Your task to perform on an android device: Add "bose quietcomfort 35" to the cart on amazon.com Image 0: 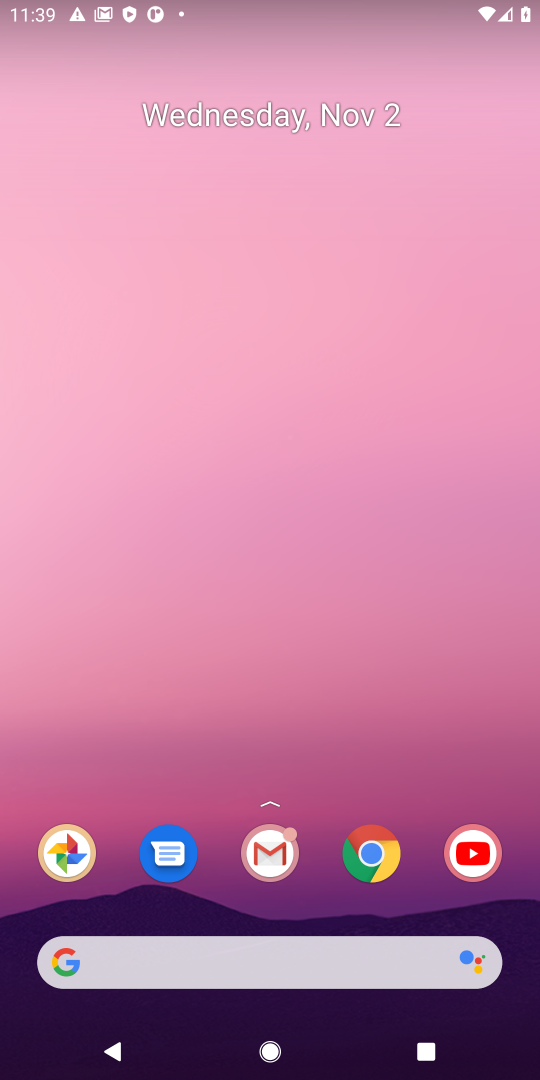
Step 0: click (375, 857)
Your task to perform on an android device: Add "bose quietcomfort 35" to the cart on amazon.com Image 1: 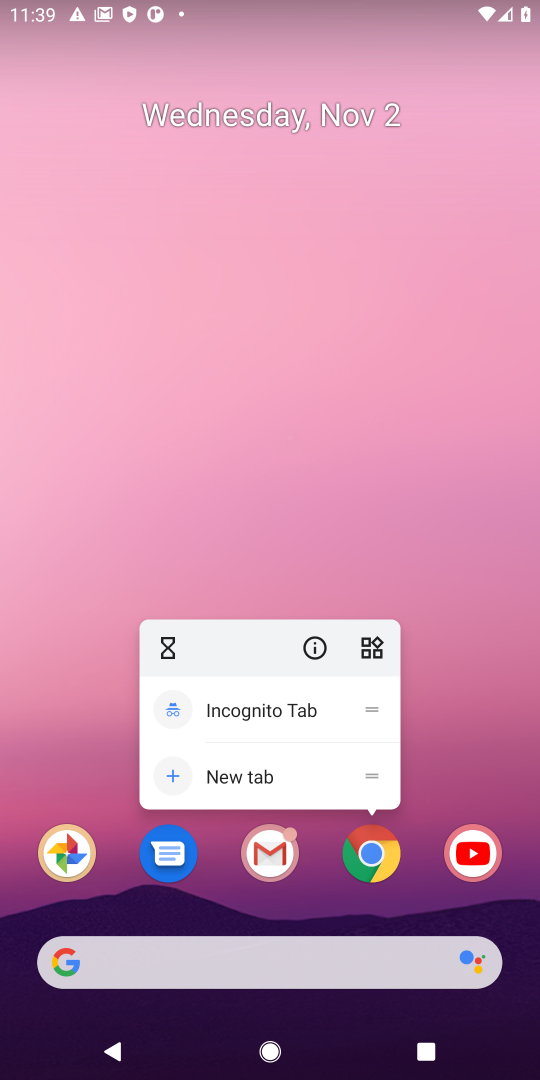
Step 1: click (369, 865)
Your task to perform on an android device: Add "bose quietcomfort 35" to the cart on amazon.com Image 2: 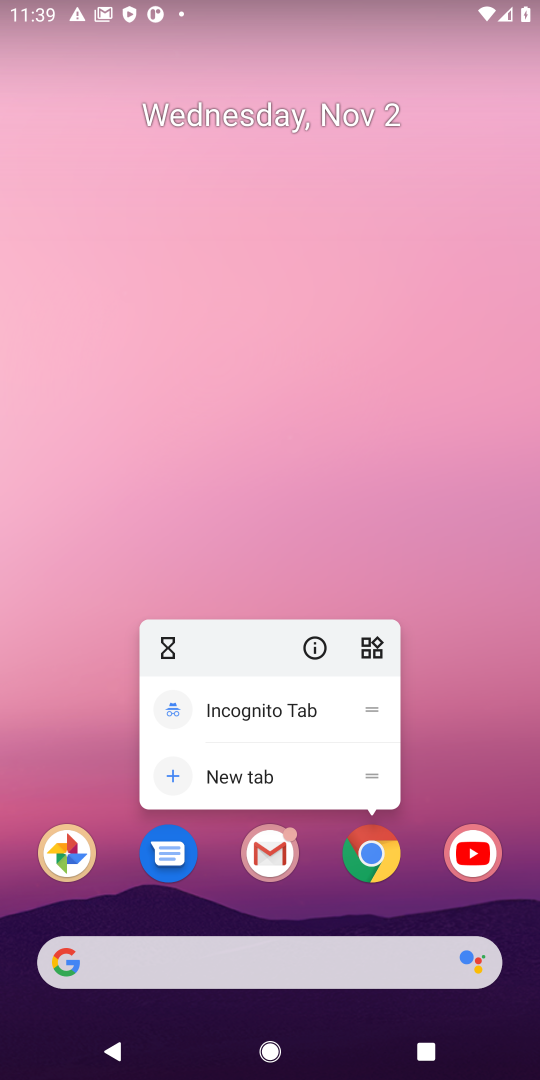
Step 2: click (377, 847)
Your task to perform on an android device: Add "bose quietcomfort 35" to the cart on amazon.com Image 3: 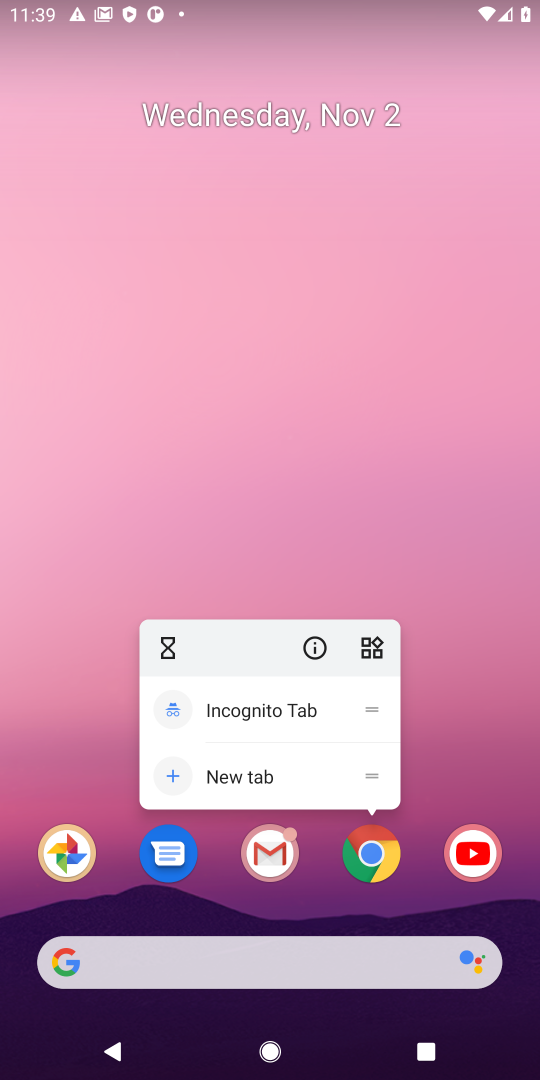
Step 3: click (373, 851)
Your task to perform on an android device: Add "bose quietcomfort 35" to the cart on amazon.com Image 4: 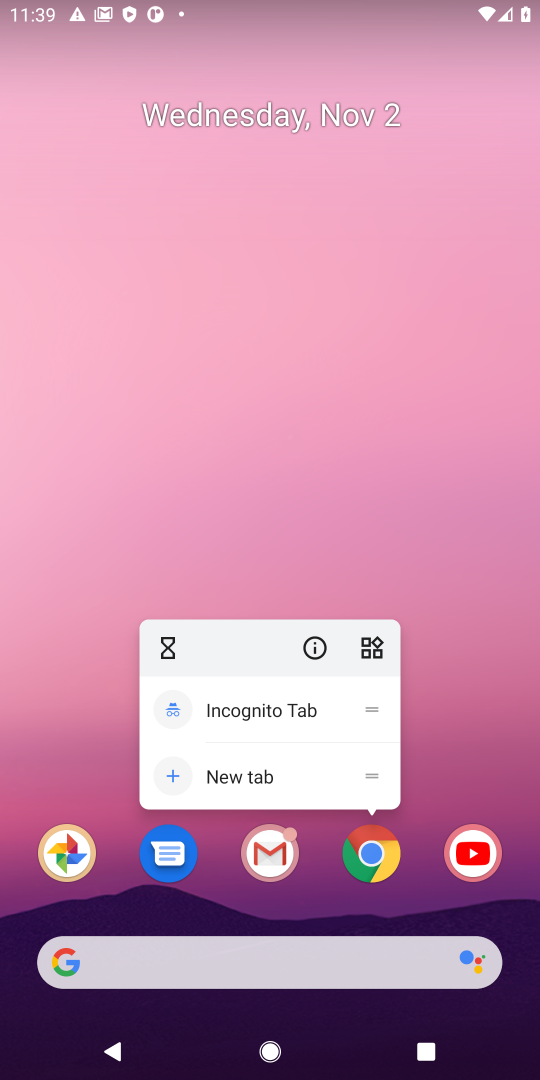
Step 4: click (384, 851)
Your task to perform on an android device: Add "bose quietcomfort 35" to the cart on amazon.com Image 5: 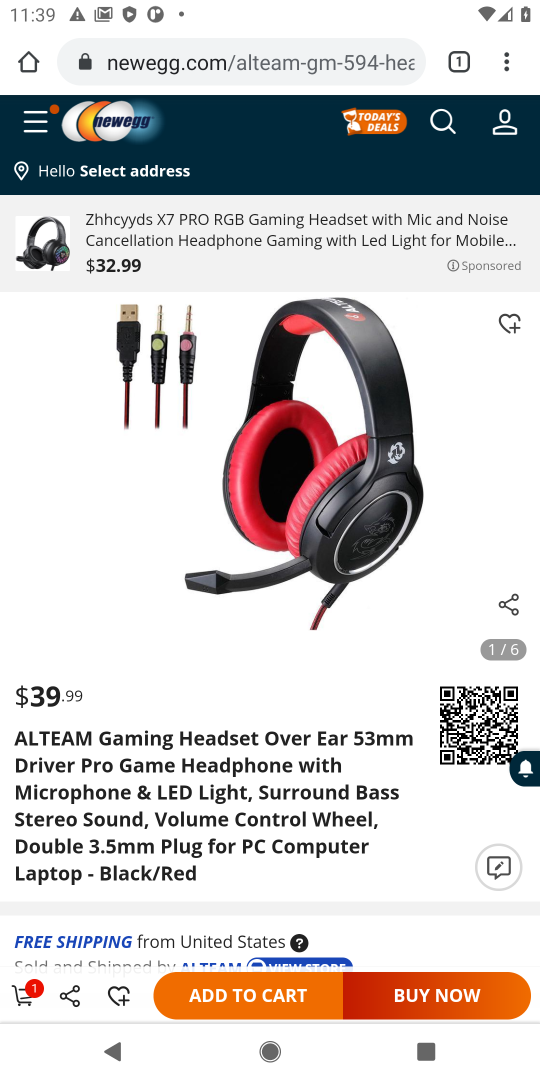
Step 5: click (226, 66)
Your task to perform on an android device: Add "bose quietcomfort 35" to the cart on amazon.com Image 6: 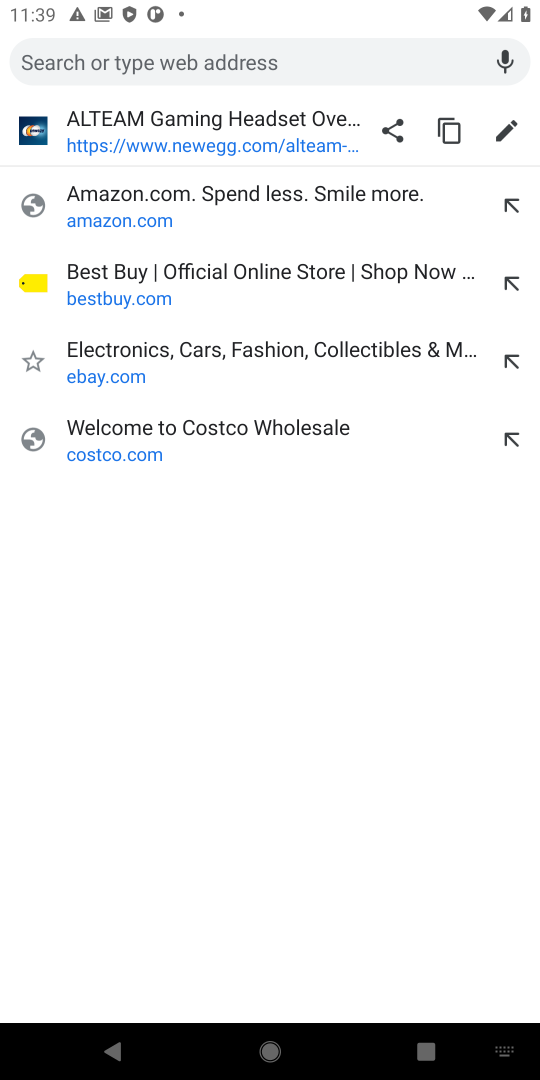
Step 6: click (127, 221)
Your task to perform on an android device: Add "bose quietcomfort 35" to the cart on amazon.com Image 7: 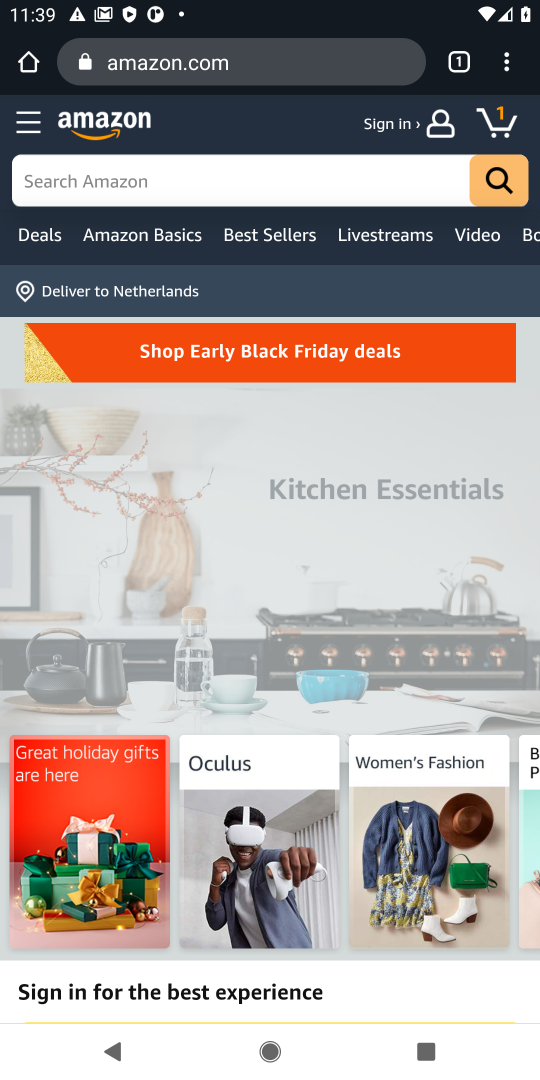
Step 7: click (116, 176)
Your task to perform on an android device: Add "bose quietcomfort 35" to the cart on amazon.com Image 8: 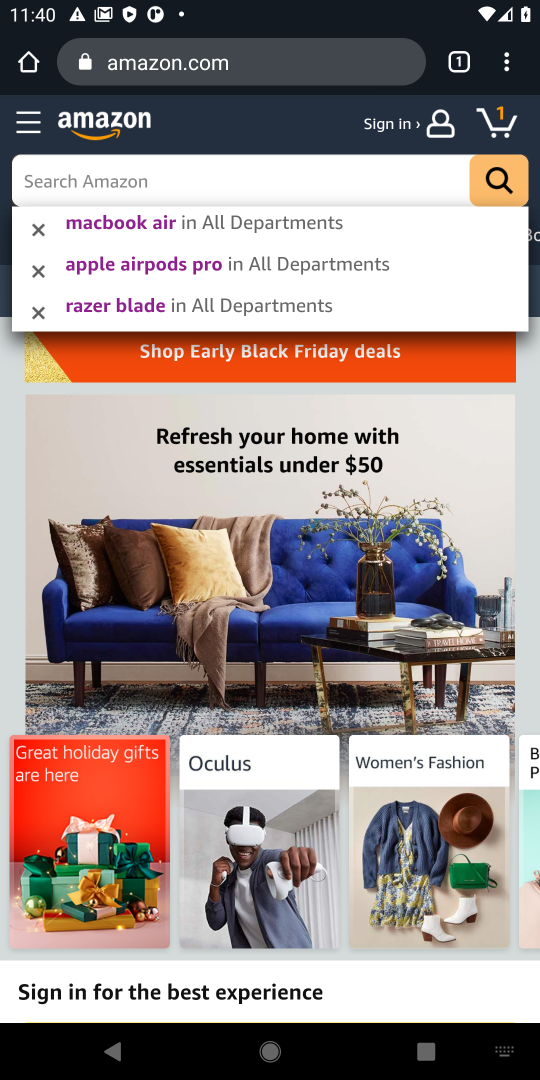
Step 8: type "bose quietcomfort 35"
Your task to perform on an android device: Add "bose quietcomfort 35" to the cart on amazon.com Image 9: 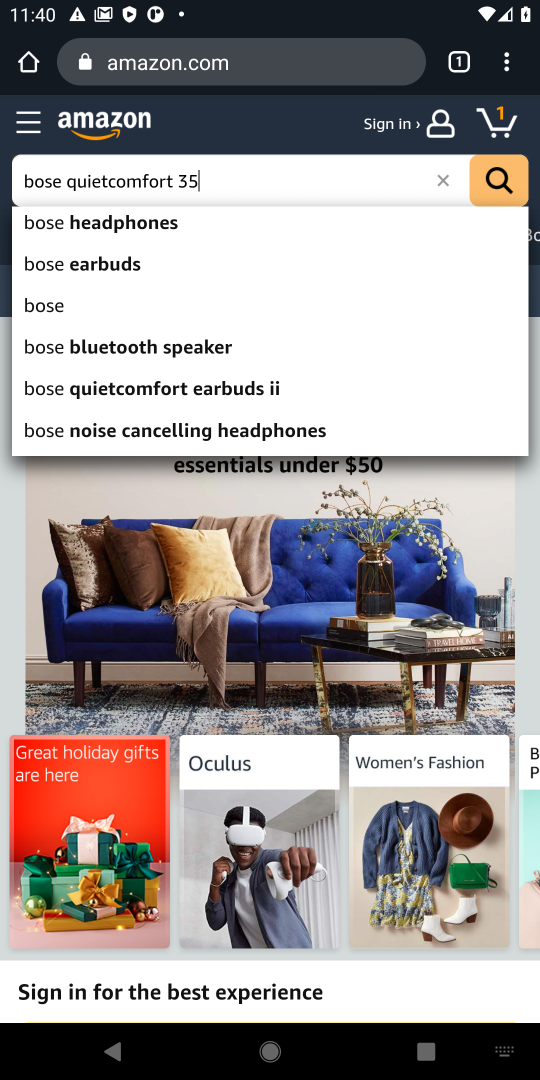
Step 9: press enter
Your task to perform on an android device: Add "bose quietcomfort 35" to the cart on amazon.com Image 10: 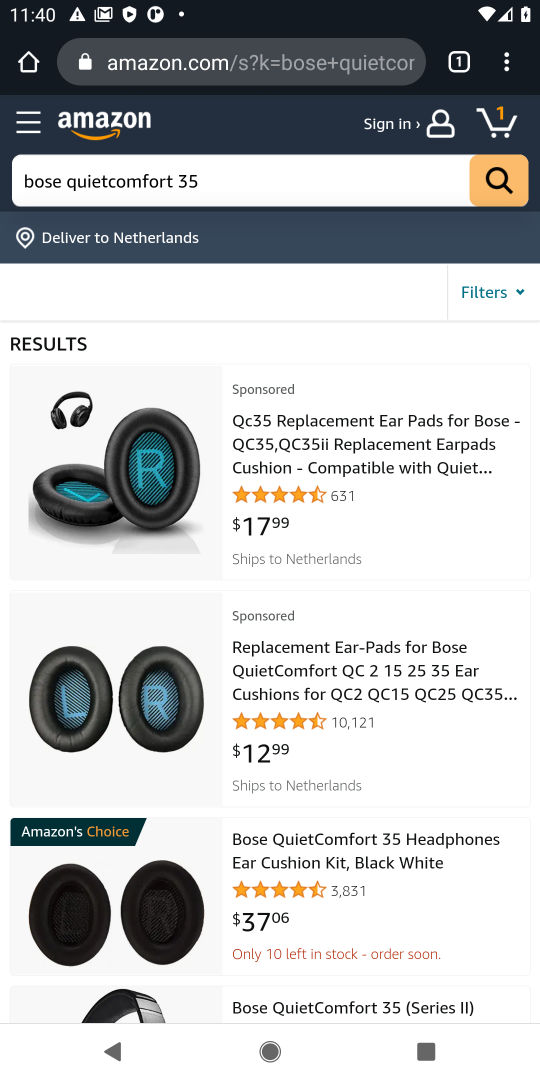
Step 10: click (327, 451)
Your task to perform on an android device: Add "bose quietcomfort 35" to the cart on amazon.com Image 11: 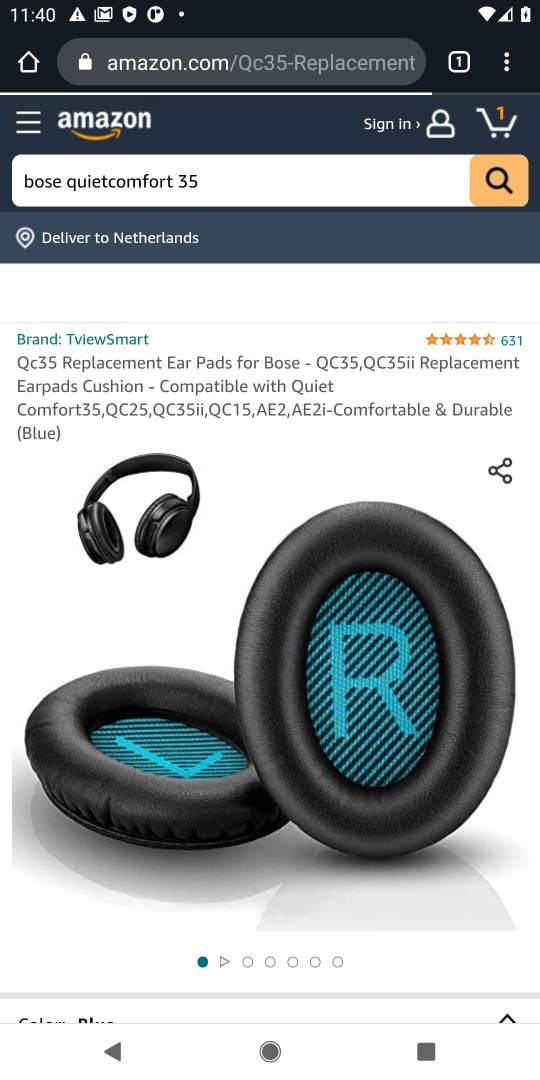
Step 11: drag from (280, 888) to (324, 563)
Your task to perform on an android device: Add "bose quietcomfort 35" to the cart on amazon.com Image 12: 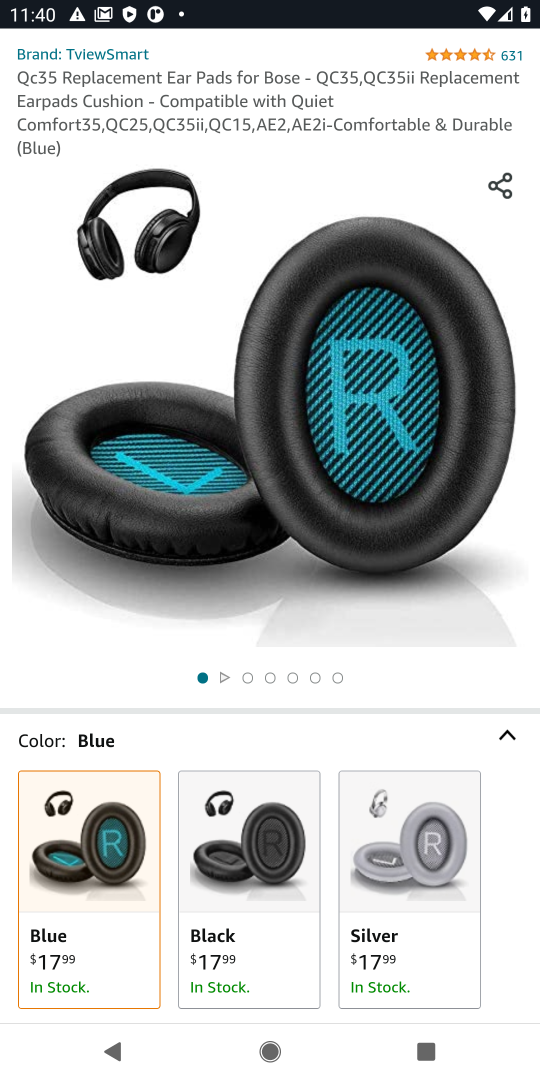
Step 12: drag from (231, 925) to (349, 371)
Your task to perform on an android device: Add "bose quietcomfort 35" to the cart on amazon.com Image 13: 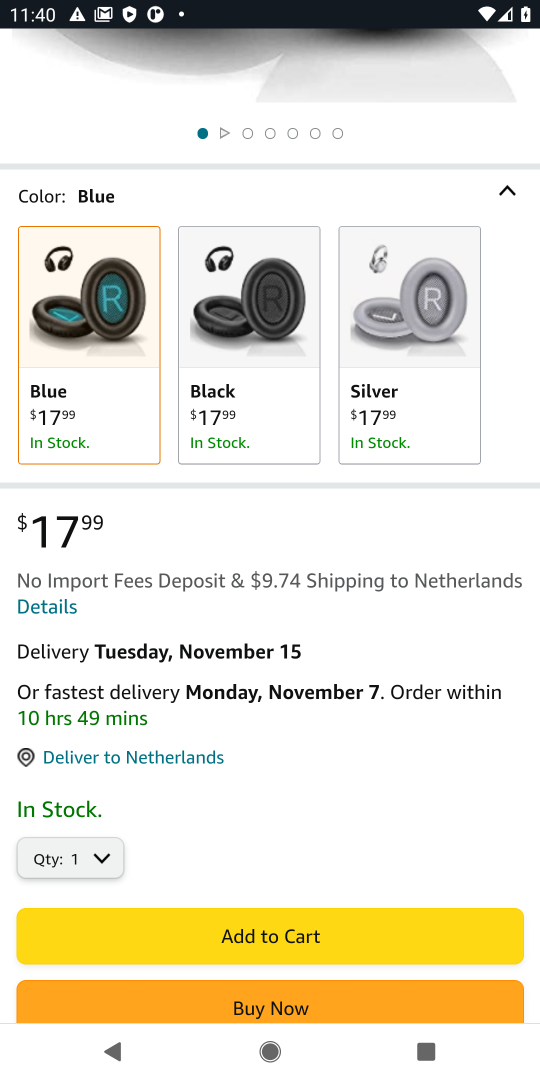
Step 13: drag from (307, 845) to (301, 692)
Your task to perform on an android device: Add "bose quietcomfort 35" to the cart on amazon.com Image 14: 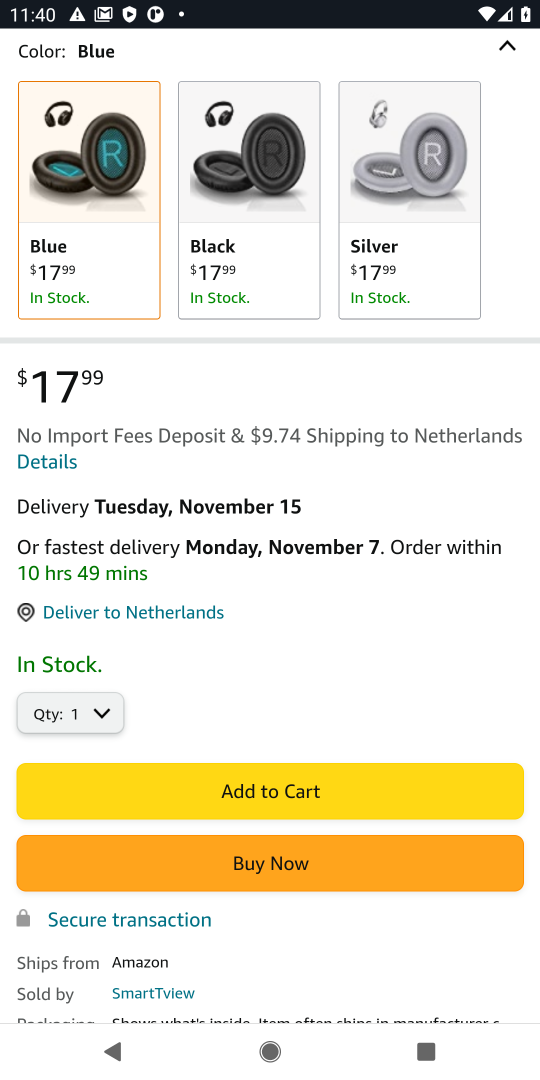
Step 14: click (267, 789)
Your task to perform on an android device: Add "bose quietcomfort 35" to the cart on amazon.com Image 15: 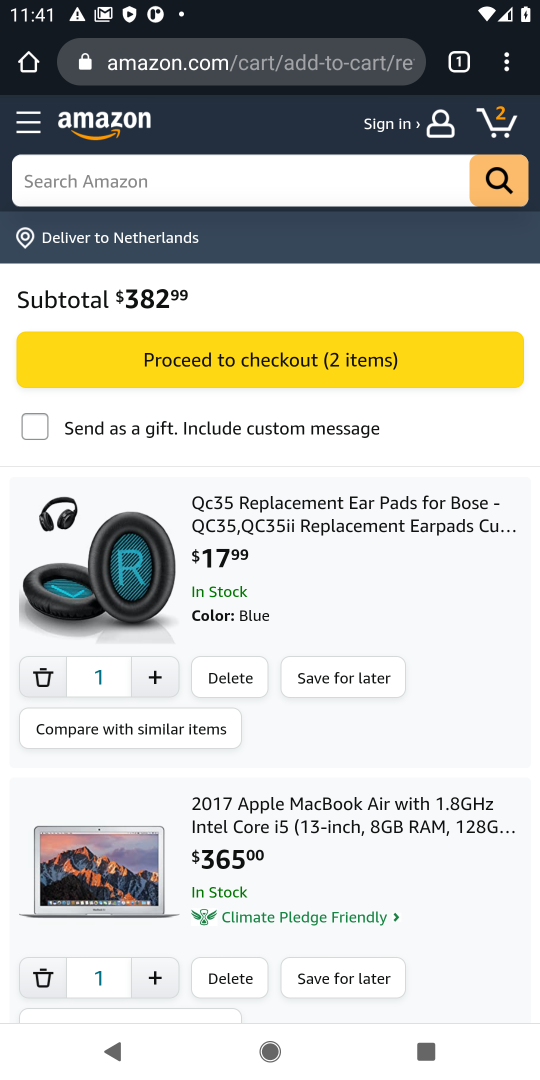
Step 15: task complete